Your task to perform on an android device: open app "Upside-Cash back on gas & food" (install if not already installed) Image 0: 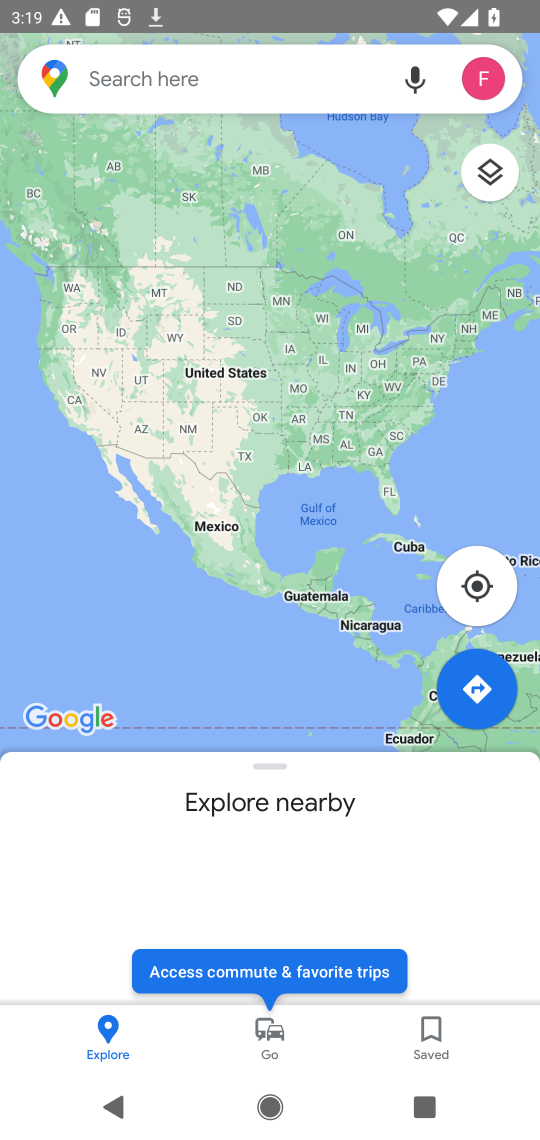
Step 0: press home button
Your task to perform on an android device: open app "Upside-Cash back on gas & food" (install if not already installed) Image 1: 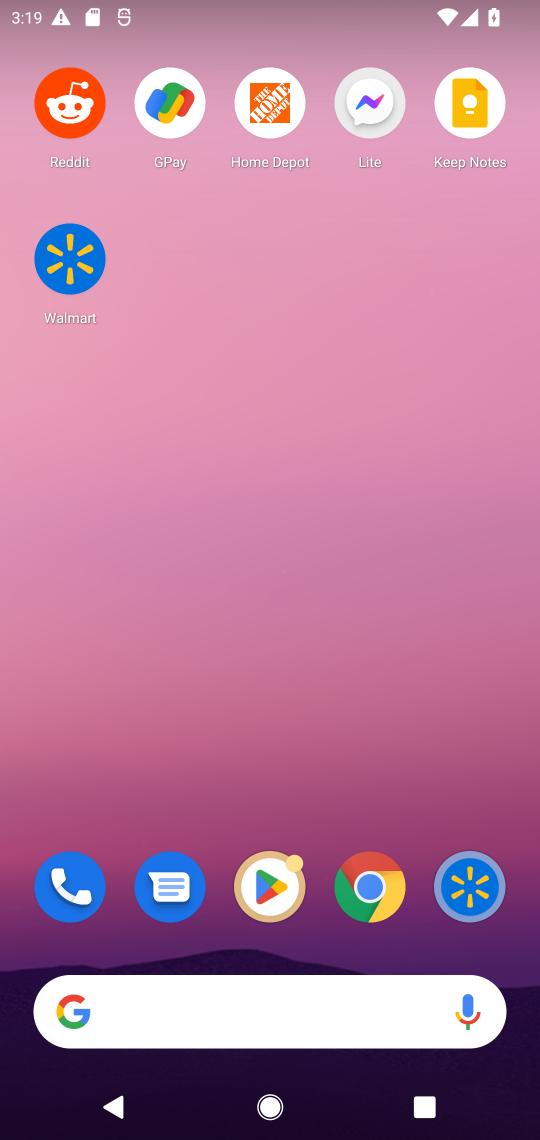
Step 1: click (271, 888)
Your task to perform on an android device: open app "Upside-Cash back on gas & food" (install if not already installed) Image 2: 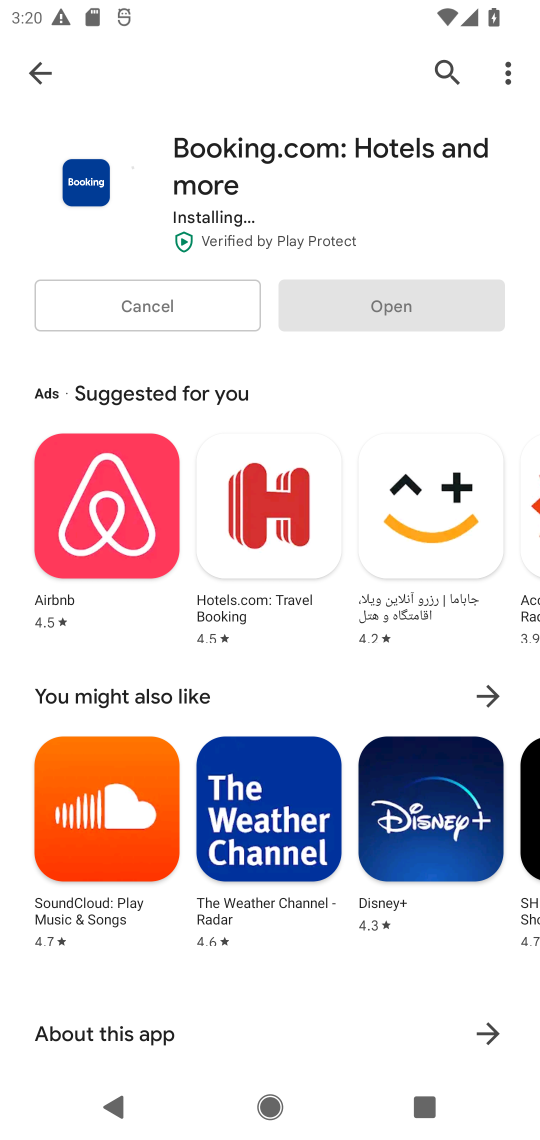
Step 2: click (39, 83)
Your task to perform on an android device: open app "Upside-Cash back on gas & food" (install if not already installed) Image 3: 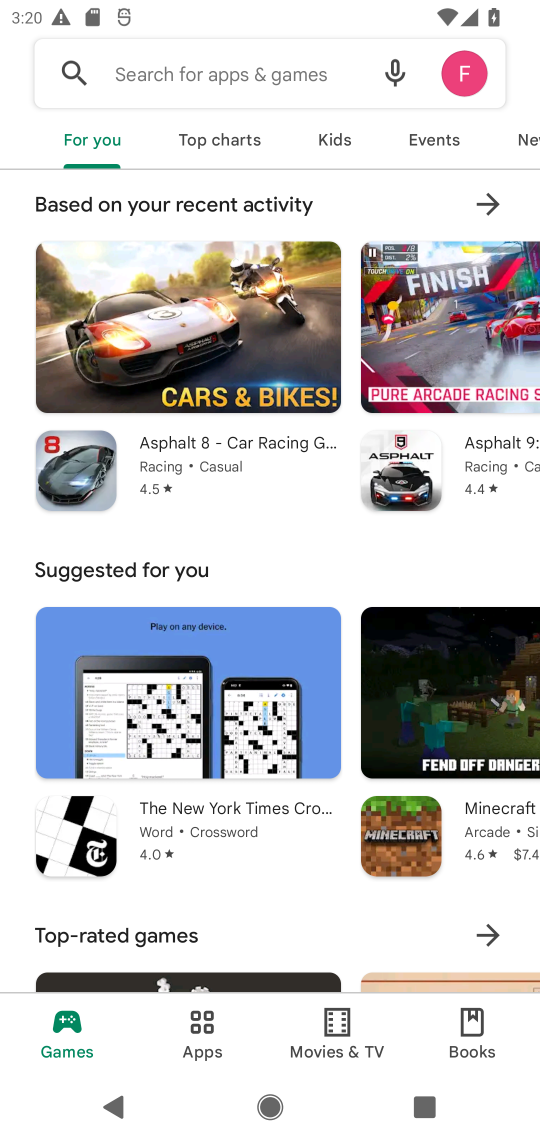
Step 3: click (167, 75)
Your task to perform on an android device: open app "Upside-Cash back on gas & food" (install if not already installed) Image 4: 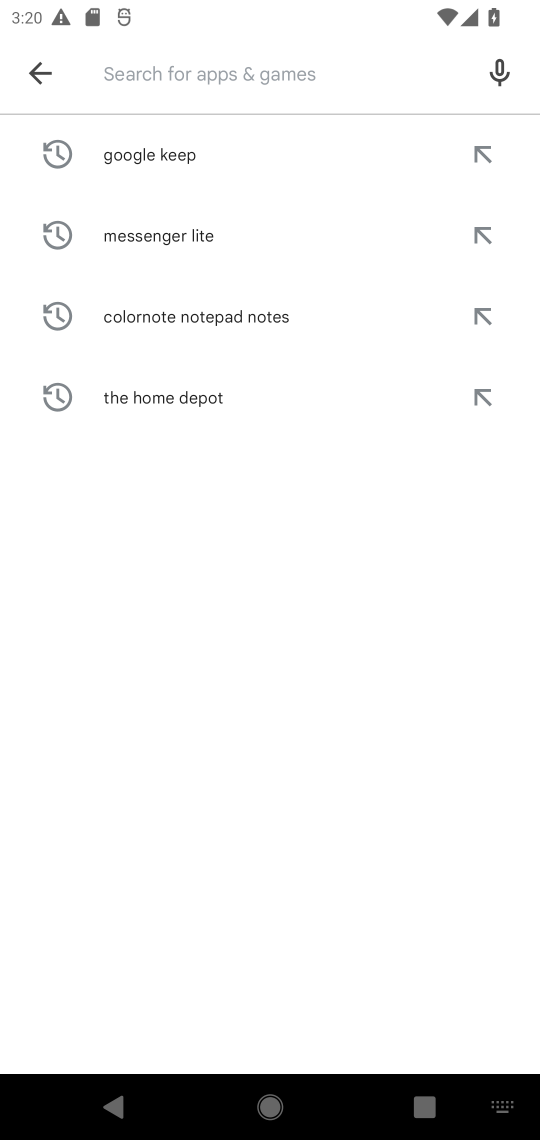
Step 4: type "Upside-Cash back on gas & food"
Your task to perform on an android device: open app "Upside-Cash back on gas & food" (install if not already installed) Image 5: 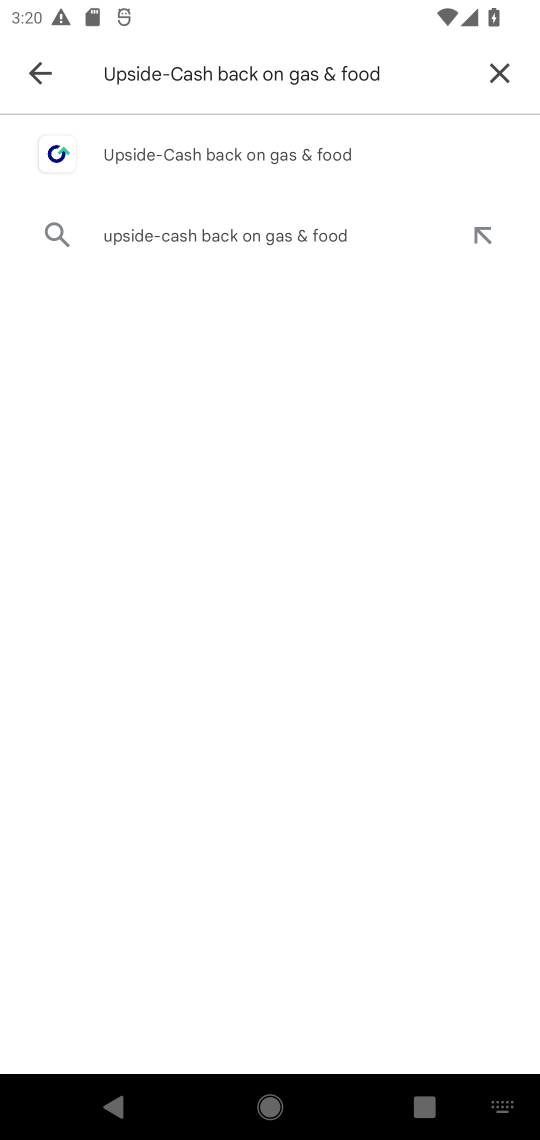
Step 5: click (256, 157)
Your task to perform on an android device: open app "Upside-Cash back on gas & food" (install if not already installed) Image 6: 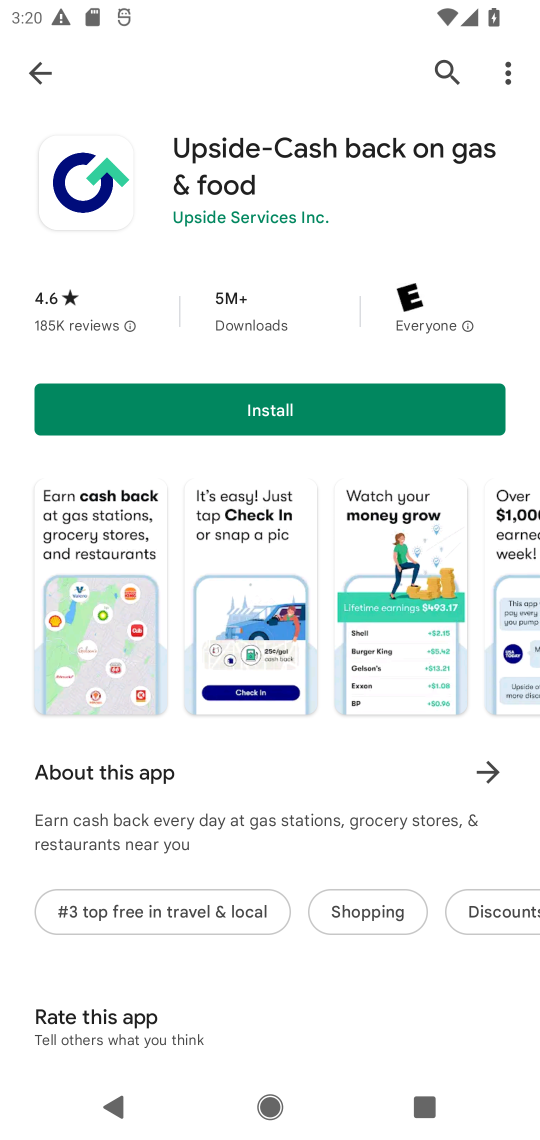
Step 6: click (256, 402)
Your task to perform on an android device: open app "Upside-Cash back on gas & food" (install if not already installed) Image 7: 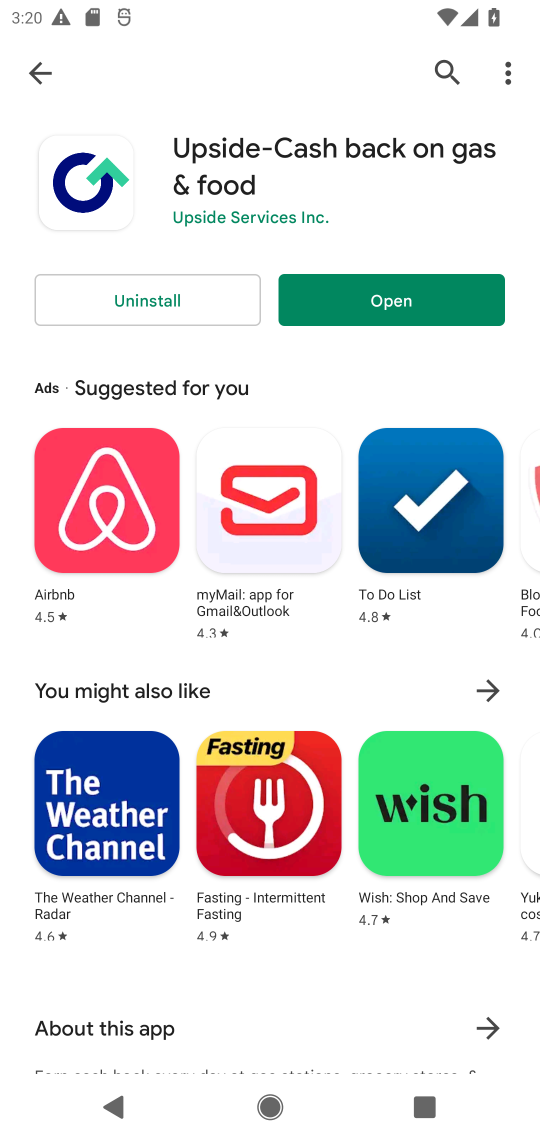
Step 7: click (388, 293)
Your task to perform on an android device: open app "Upside-Cash back on gas & food" (install if not already installed) Image 8: 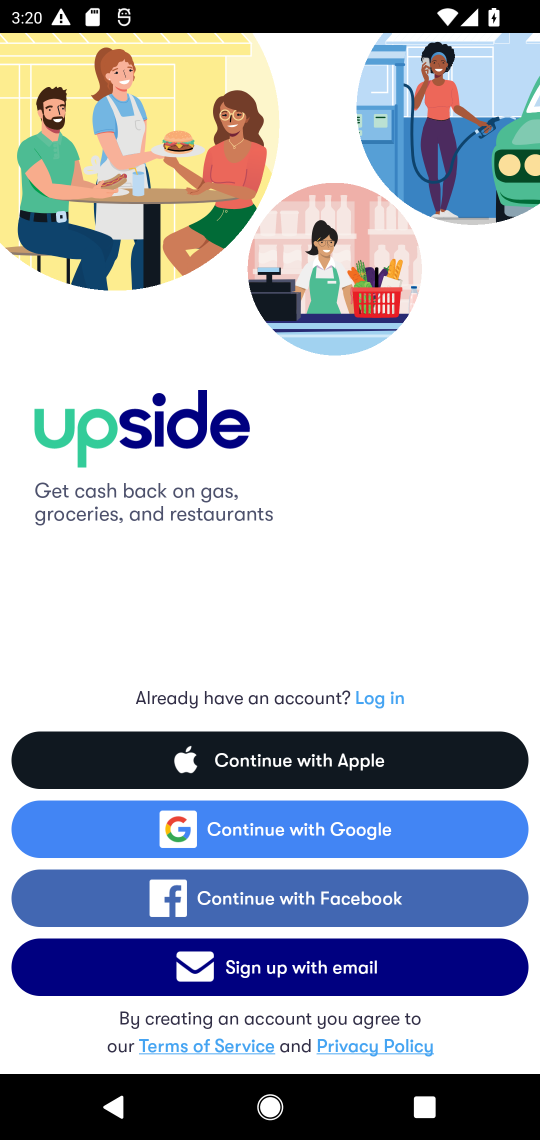
Step 8: task complete